Your task to perform on an android device: Open privacy settings Image 0: 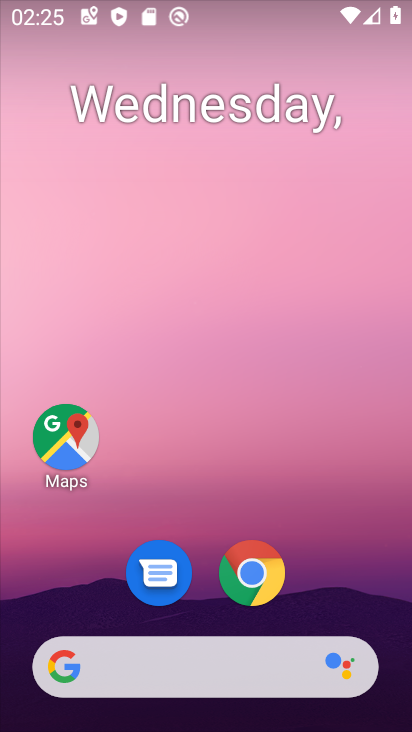
Step 0: drag from (349, 598) to (335, 141)
Your task to perform on an android device: Open privacy settings Image 1: 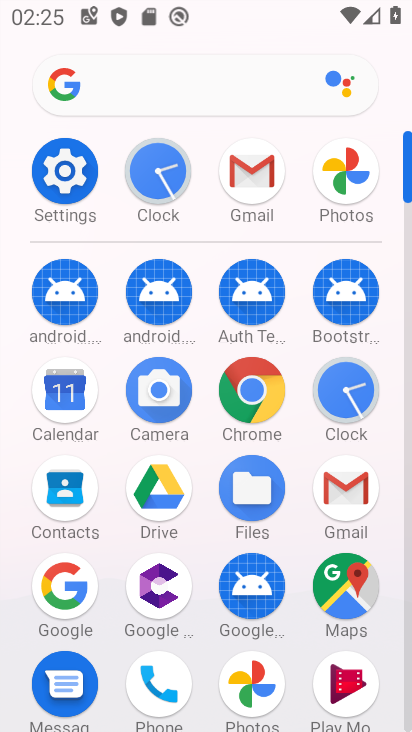
Step 1: click (62, 170)
Your task to perform on an android device: Open privacy settings Image 2: 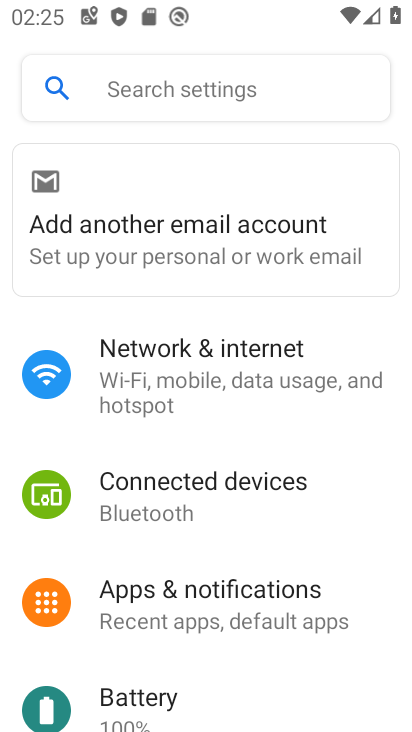
Step 2: drag from (206, 531) to (266, 390)
Your task to perform on an android device: Open privacy settings Image 3: 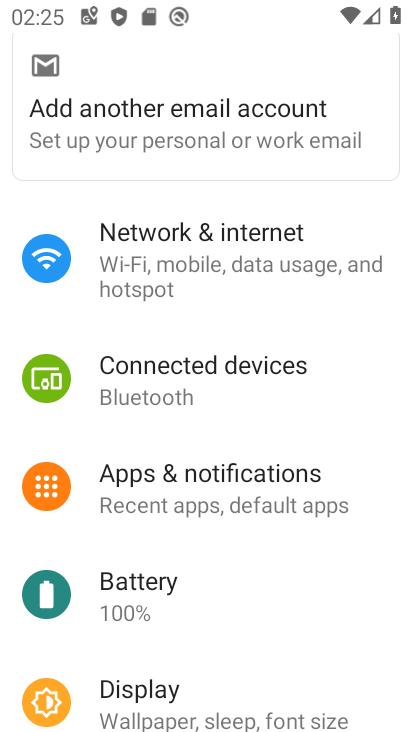
Step 3: drag from (209, 621) to (263, 470)
Your task to perform on an android device: Open privacy settings Image 4: 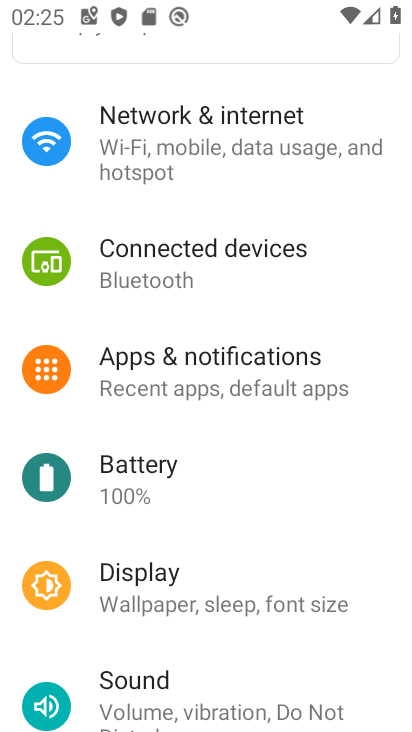
Step 4: drag from (193, 657) to (282, 474)
Your task to perform on an android device: Open privacy settings Image 5: 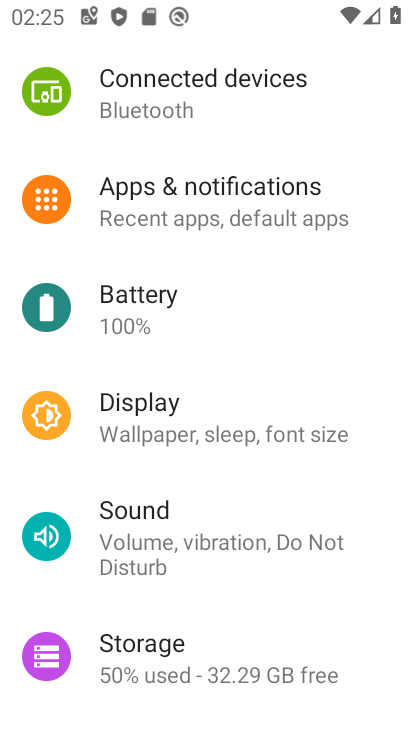
Step 5: drag from (226, 628) to (330, 481)
Your task to perform on an android device: Open privacy settings Image 6: 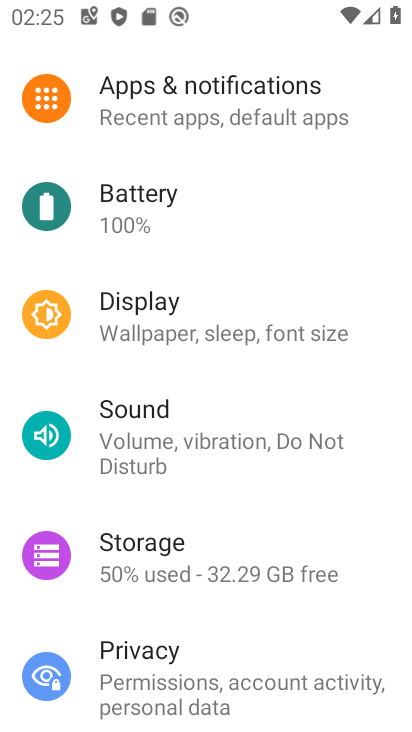
Step 6: drag from (198, 640) to (298, 504)
Your task to perform on an android device: Open privacy settings Image 7: 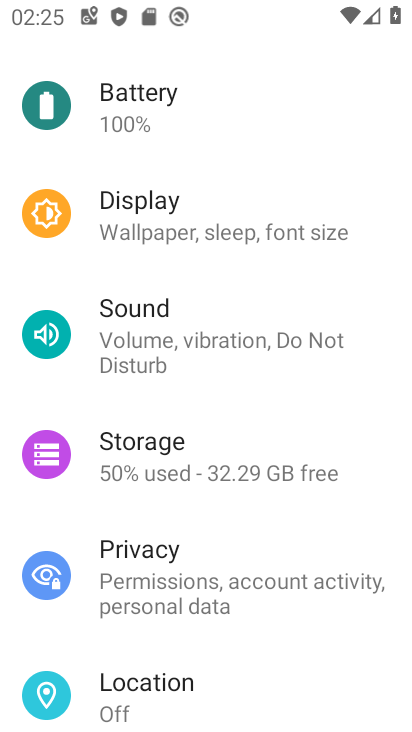
Step 7: click (128, 548)
Your task to perform on an android device: Open privacy settings Image 8: 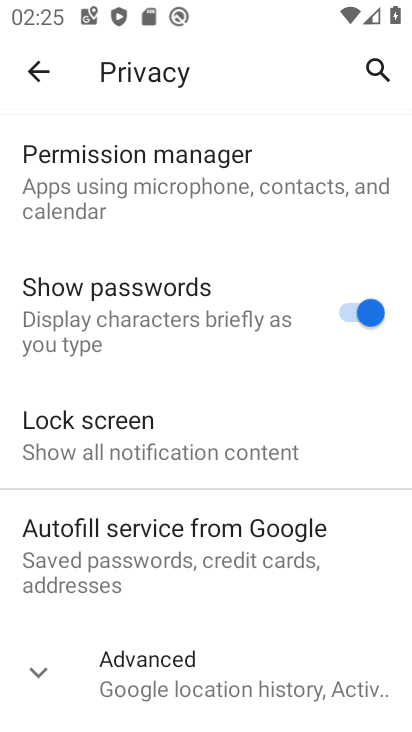
Step 8: task complete